Your task to perform on an android device: Go to eBay Image 0: 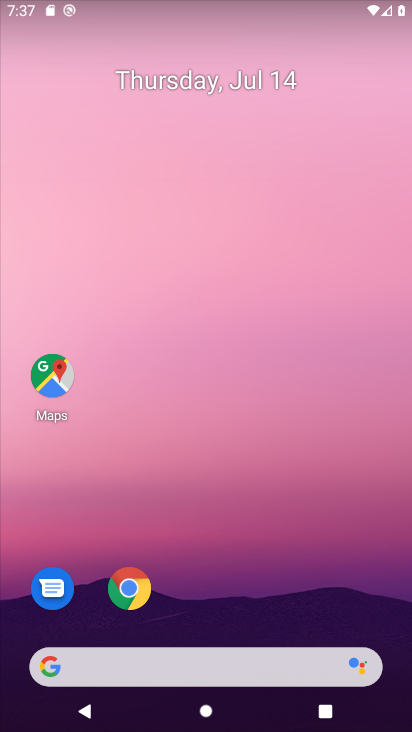
Step 0: click (125, 591)
Your task to perform on an android device: Go to eBay Image 1: 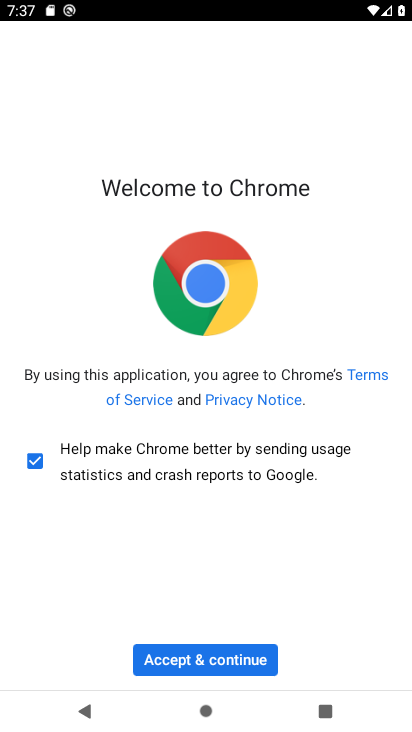
Step 1: click (165, 656)
Your task to perform on an android device: Go to eBay Image 2: 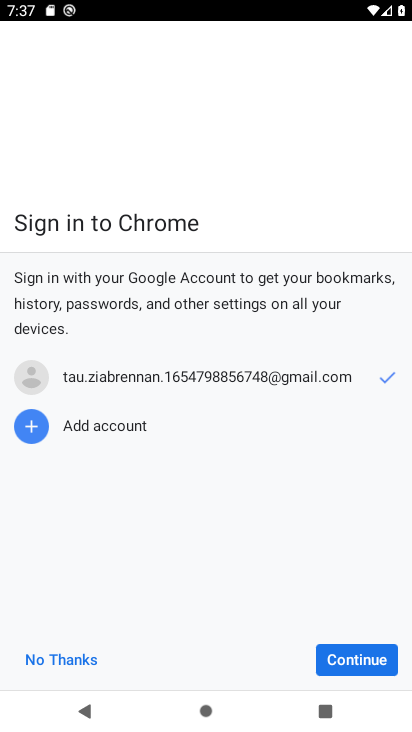
Step 2: click (372, 653)
Your task to perform on an android device: Go to eBay Image 3: 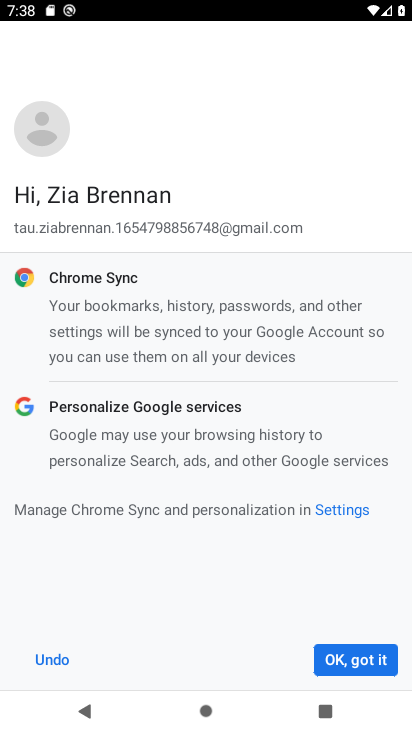
Step 3: click (387, 662)
Your task to perform on an android device: Go to eBay Image 4: 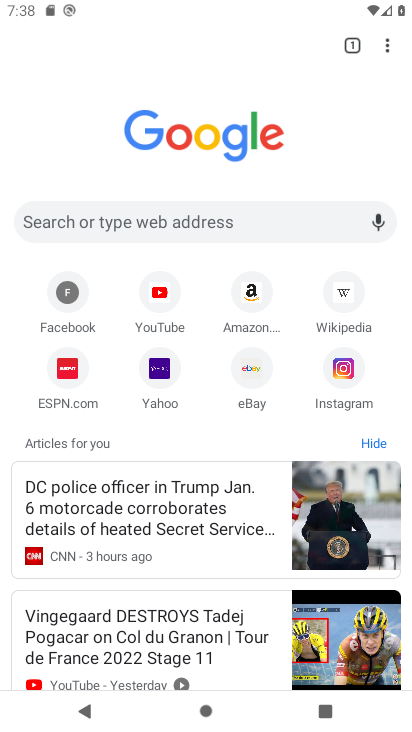
Step 4: click (259, 368)
Your task to perform on an android device: Go to eBay Image 5: 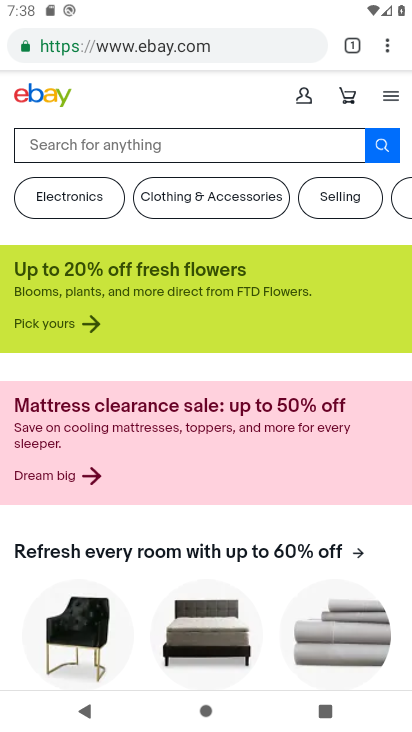
Step 5: task complete